Your task to perform on an android device: change timer sound Image 0: 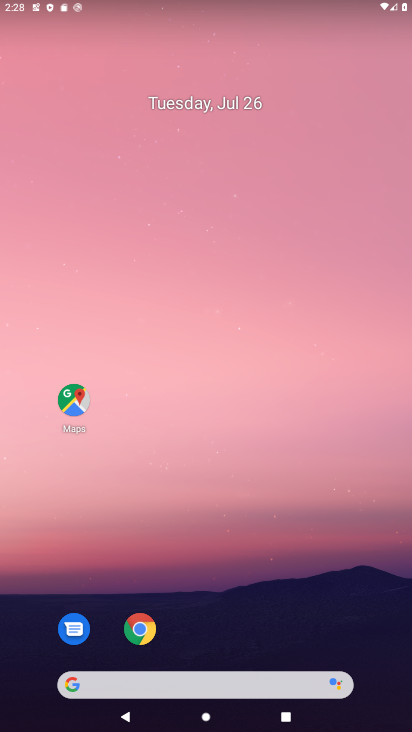
Step 0: drag from (213, 629) to (202, 209)
Your task to perform on an android device: change timer sound Image 1: 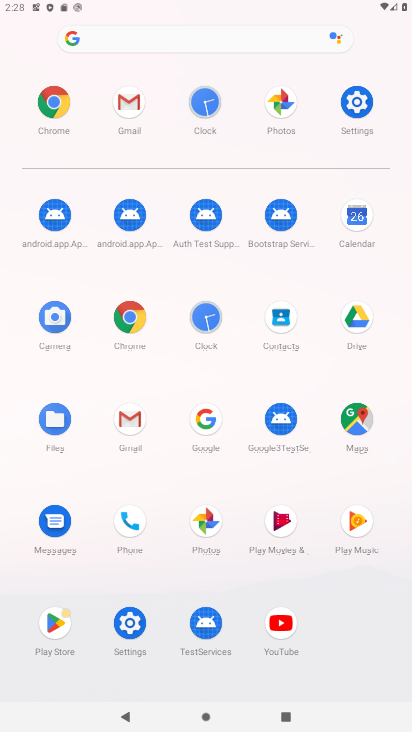
Step 1: click (192, 325)
Your task to perform on an android device: change timer sound Image 2: 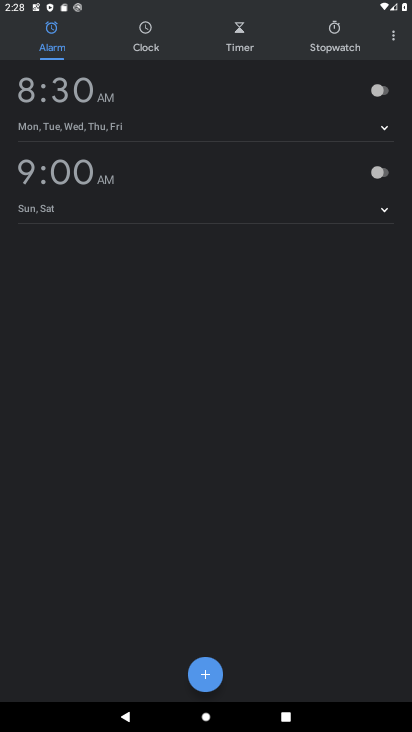
Step 2: click (387, 36)
Your task to perform on an android device: change timer sound Image 3: 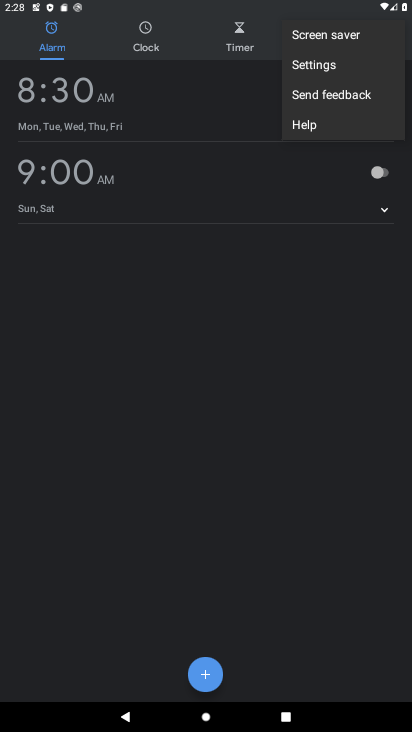
Step 3: click (330, 62)
Your task to perform on an android device: change timer sound Image 4: 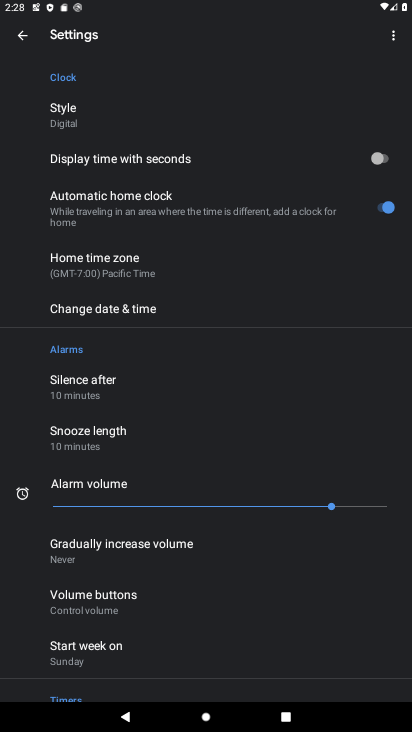
Step 4: drag from (181, 628) to (212, 355)
Your task to perform on an android device: change timer sound Image 5: 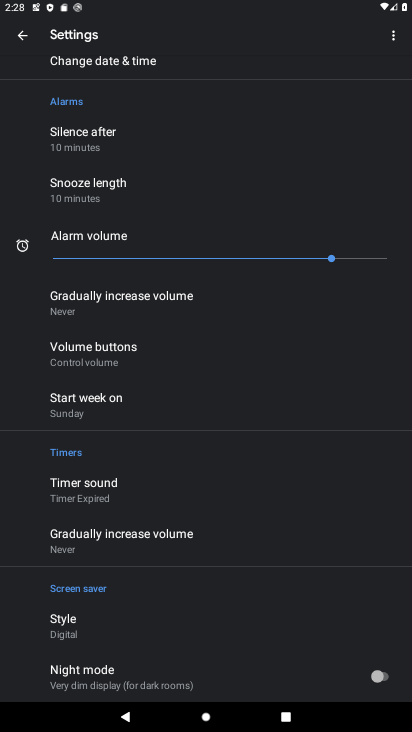
Step 5: click (156, 492)
Your task to perform on an android device: change timer sound Image 6: 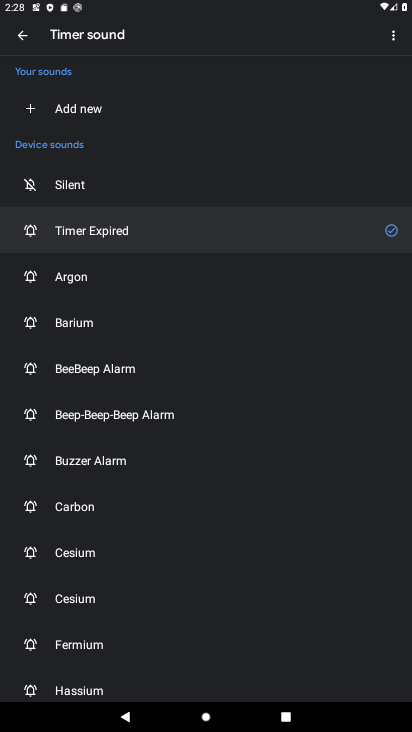
Step 6: click (160, 492)
Your task to perform on an android device: change timer sound Image 7: 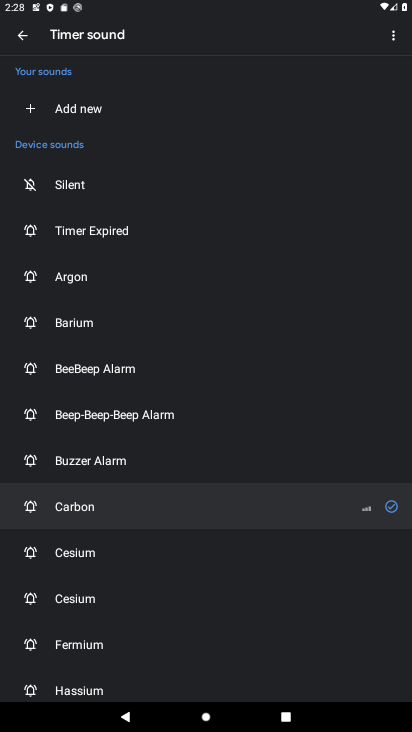
Step 7: task complete